Your task to perform on an android device: What's the weather going to be tomorrow? Image 0: 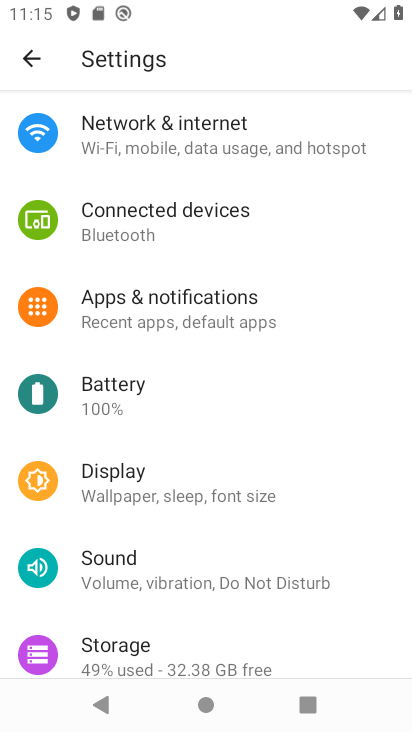
Step 0: press home button
Your task to perform on an android device: What's the weather going to be tomorrow? Image 1: 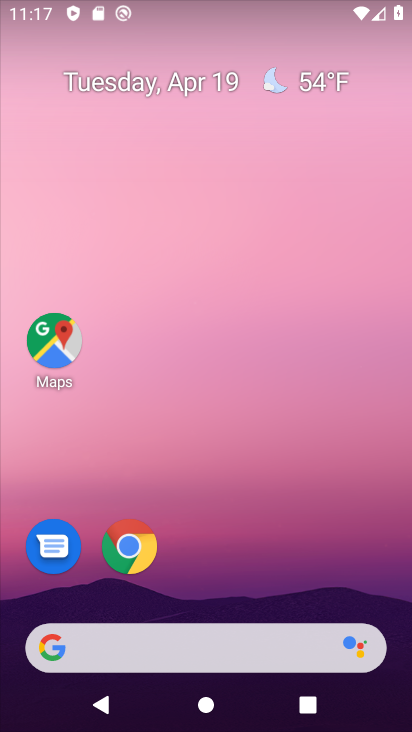
Step 1: click (308, 639)
Your task to perform on an android device: What's the weather going to be tomorrow? Image 2: 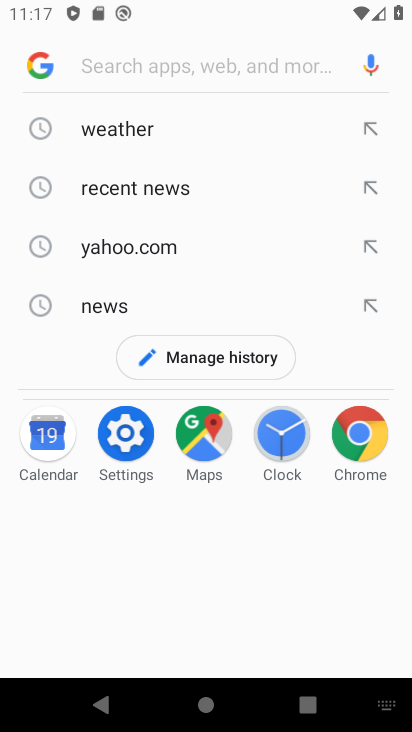
Step 2: type "What's the weather going to be tomorrow?"
Your task to perform on an android device: What's the weather going to be tomorrow? Image 3: 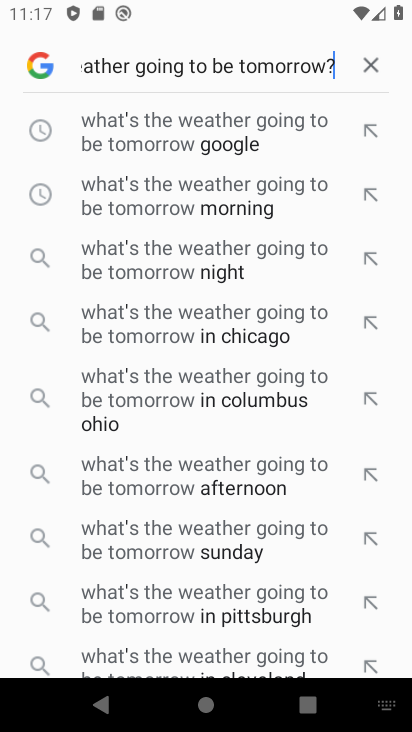
Step 3: click (287, 151)
Your task to perform on an android device: What's the weather going to be tomorrow? Image 4: 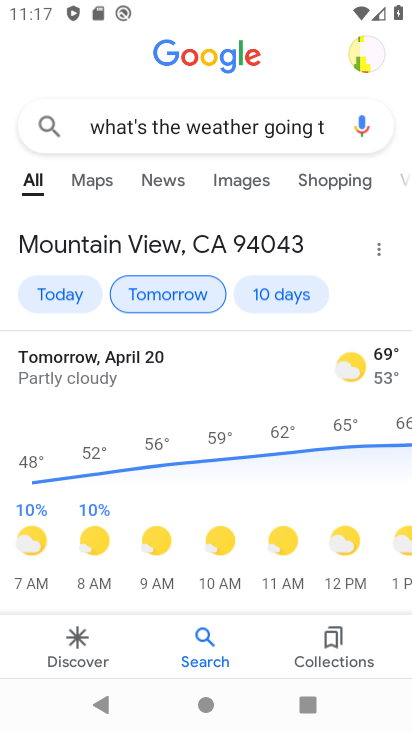
Step 4: task complete